Your task to perform on an android device: delete location history Image 0: 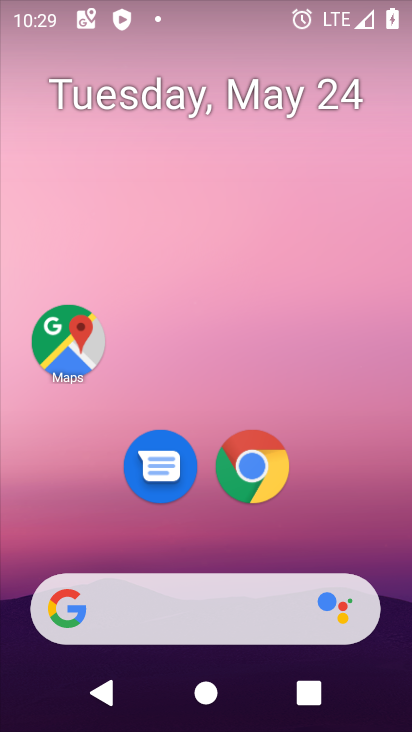
Step 0: drag from (395, 558) to (386, 251)
Your task to perform on an android device: delete location history Image 1: 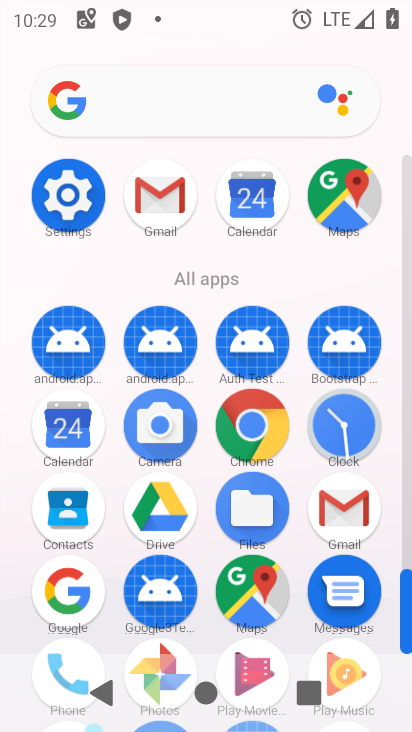
Step 1: click (256, 605)
Your task to perform on an android device: delete location history Image 2: 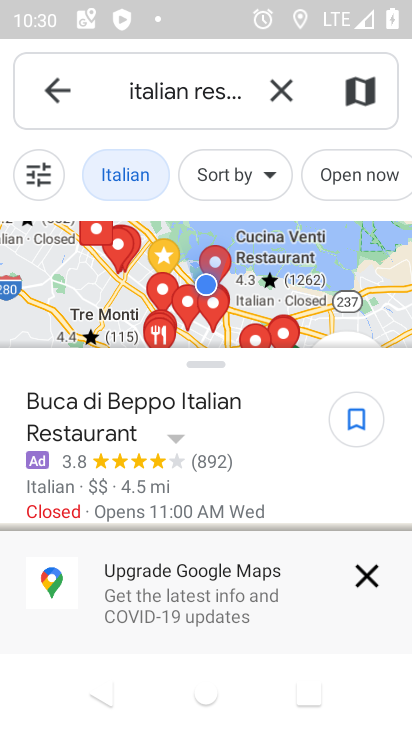
Step 2: click (61, 104)
Your task to perform on an android device: delete location history Image 3: 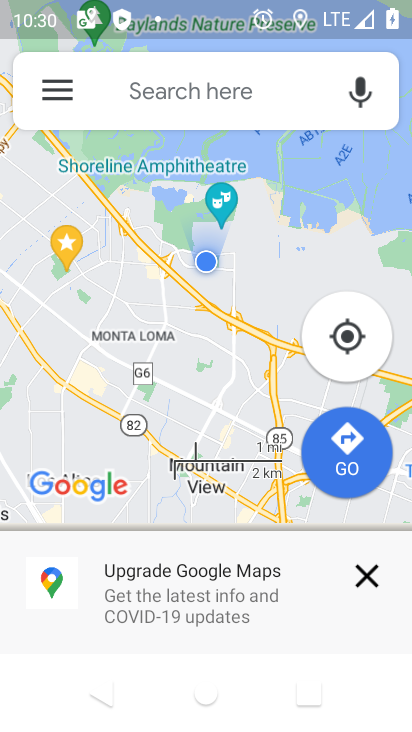
Step 3: click (61, 104)
Your task to perform on an android device: delete location history Image 4: 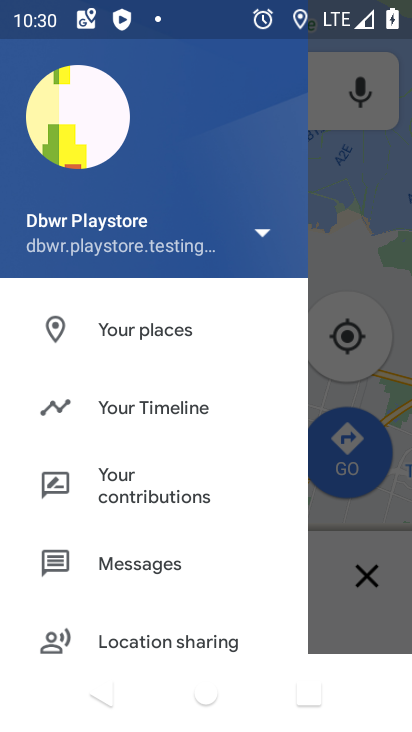
Step 4: click (190, 420)
Your task to perform on an android device: delete location history Image 5: 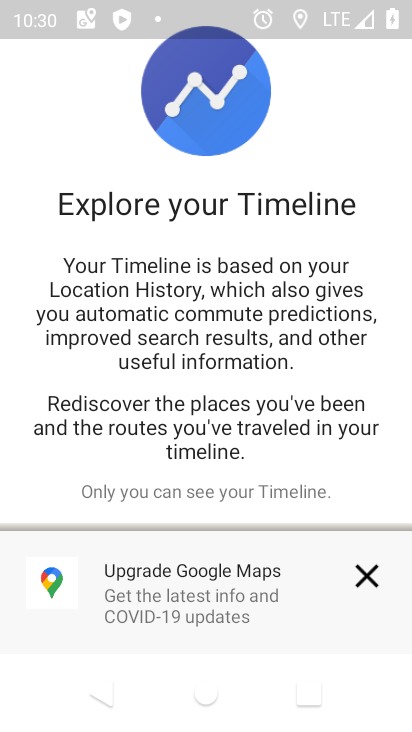
Step 5: click (370, 568)
Your task to perform on an android device: delete location history Image 6: 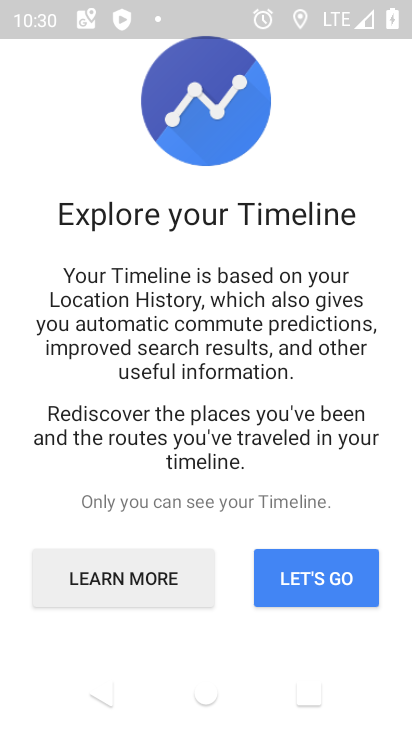
Step 6: click (292, 590)
Your task to perform on an android device: delete location history Image 7: 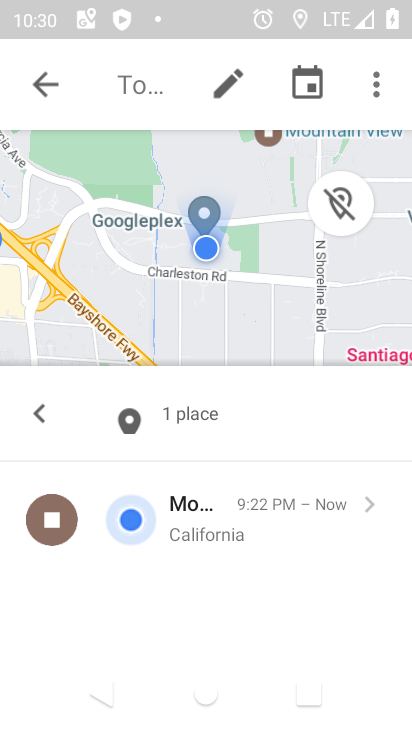
Step 7: click (382, 86)
Your task to perform on an android device: delete location history Image 8: 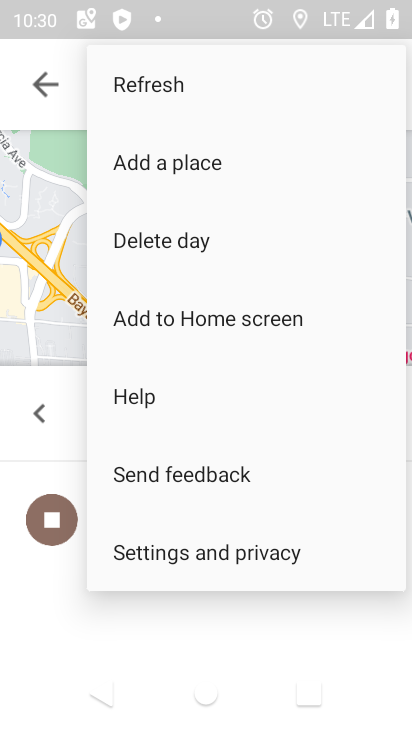
Step 8: click (237, 548)
Your task to perform on an android device: delete location history Image 9: 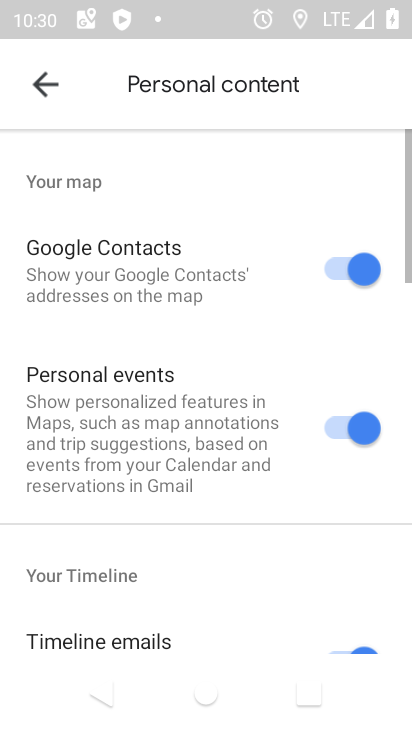
Step 9: drag from (239, 550) to (237, 419)
Your task to perform on an android device: delete location history Image 10: 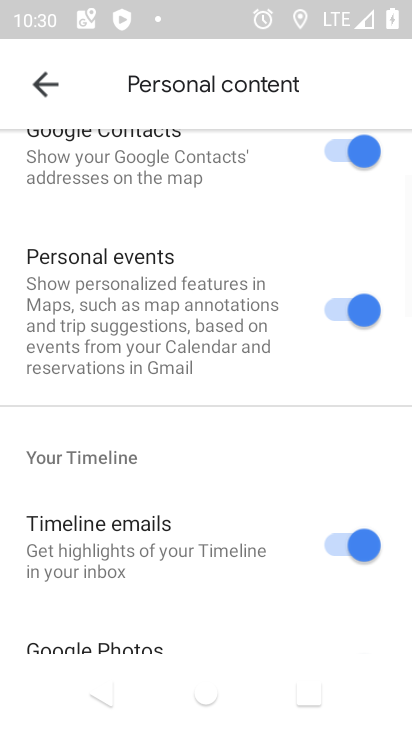
Step 10: drag from (248, 537) to (247, 433)
Your task to perform on an android device: delete location history Image 11: 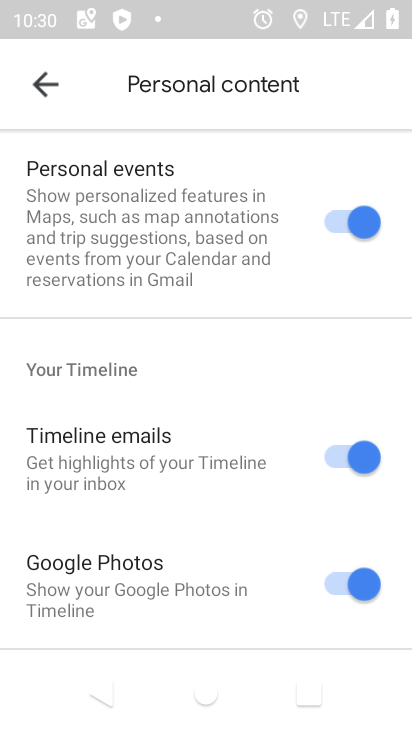
Step 11: drag from (257, 552) to (265, 474)
Your task to perform on an android device: delete location history Image 12: 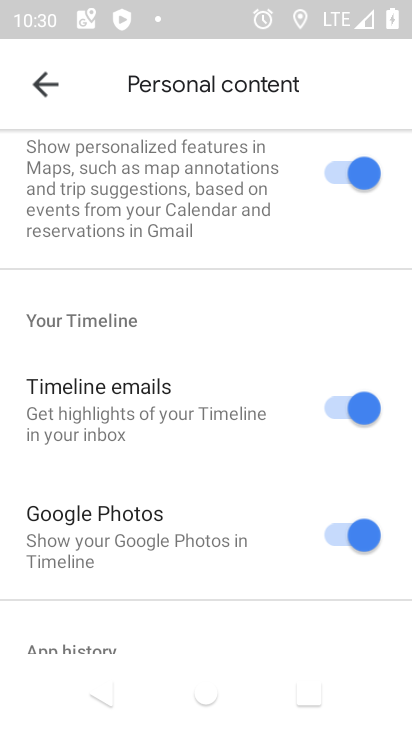
Step 12: drag from (274, 564) to (284, 467)
Your task to perform on an android device: delete location history Image 13: 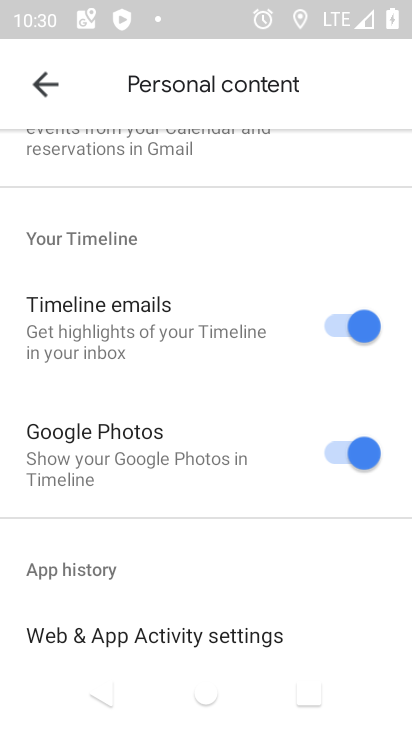
Step 13: drag from (266, 552) to (259, 445)
Your task to perform on an android device: delete location history Image 14: 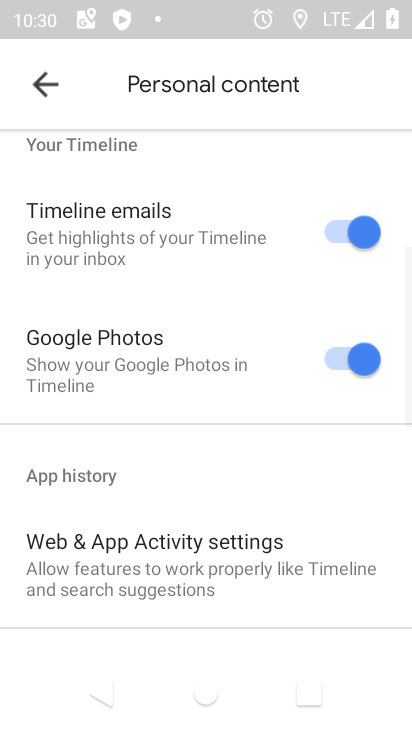
Step 14: drag from (268, 587) to (299, 470)
Your task to perform on an android device: delete location history Image 15: 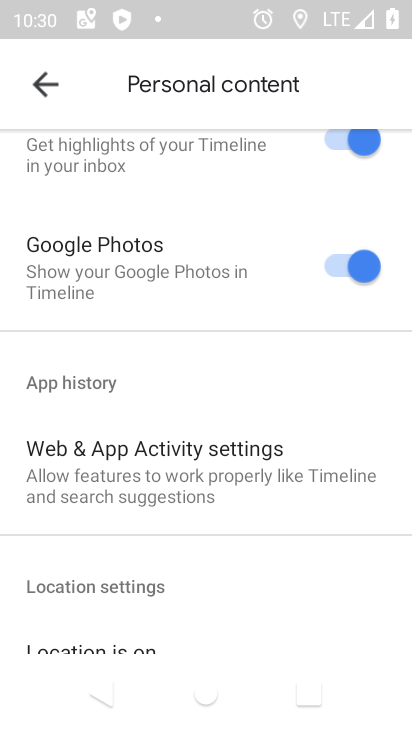
Step 15: drag from (302, 544) to (303, 459)
Your task to perform on an android device: delete location history Image 16: 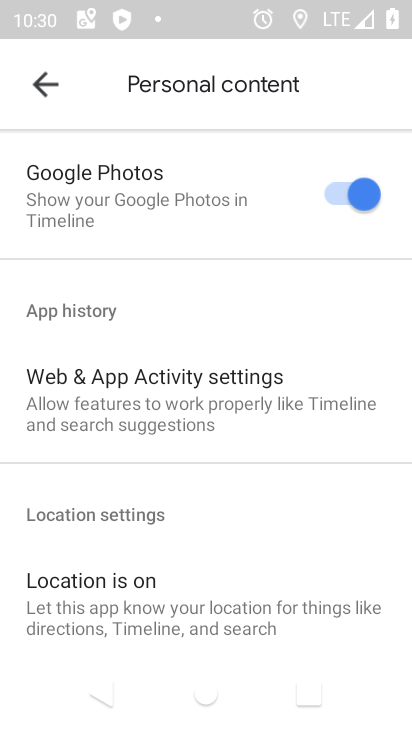
Step 16: drag from (304, 553) to (313, 458)
Your task to perform on an android device: delete location history Image 17: 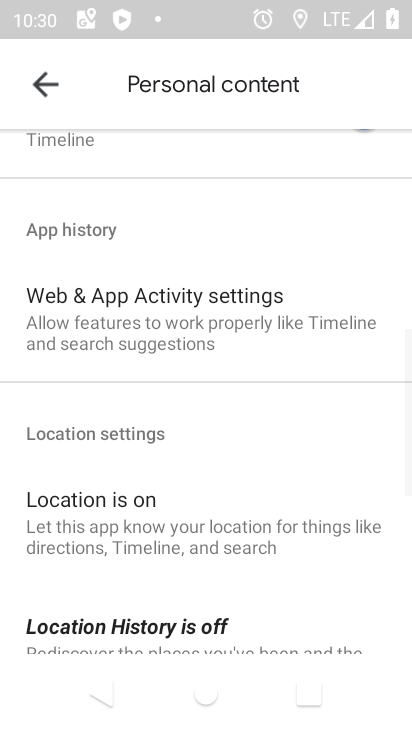
Step 17: drag from (308, 575) to (303, 483)
Your task to perform on an android device: delete location history Image 18: 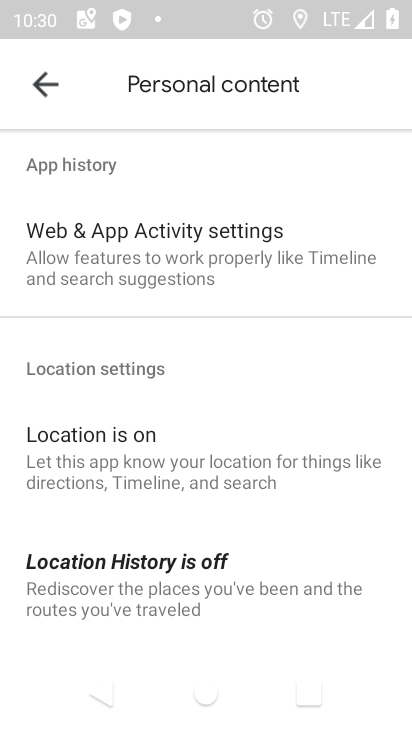
Step 18: drag from (290, 565) to (292, 475)
Your task to perform on an android device: delete location history Image 19: 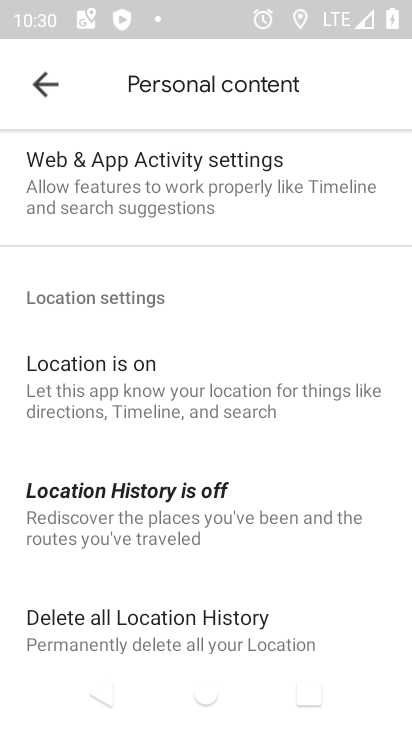
Step 19: drag from (283, 561) to (285, 474)
Your task to perform on an android device: delete location history Image 20: 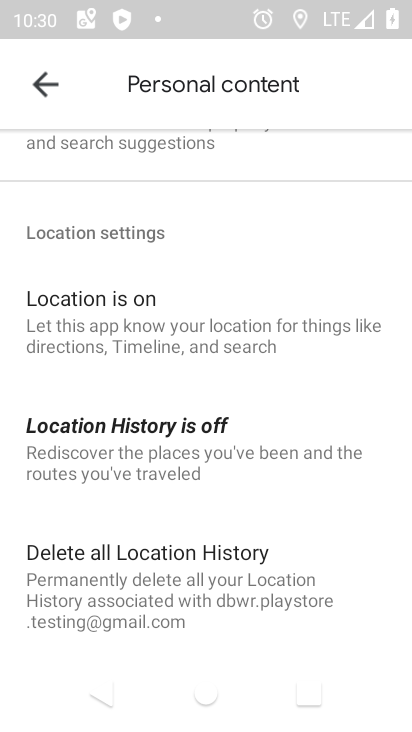
Step 20: click (289, 587)
Your task to perform on an android device: delete location history Image 21: 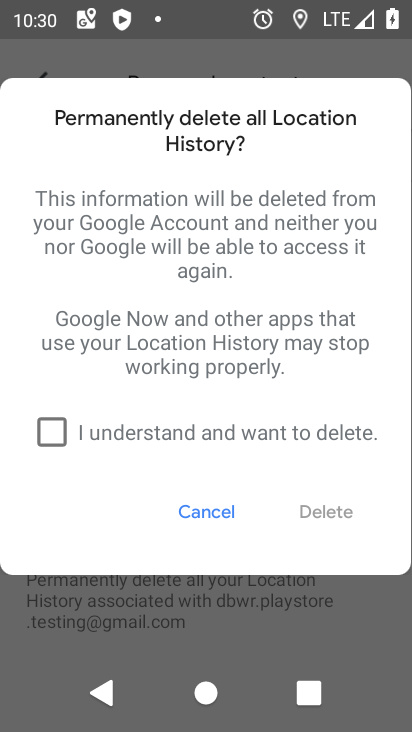
Step 21: click (46, 442)
Your task to perform on an android device: delete location history Image 22: 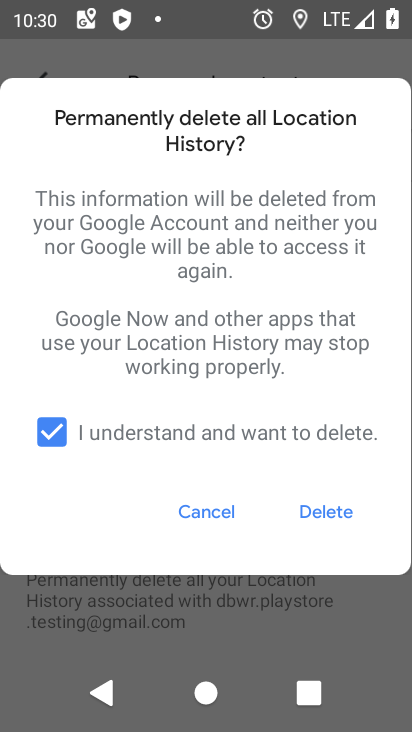
Step 22: click (343, 504)
Your task to perform on an android device: delete location history Image 23: 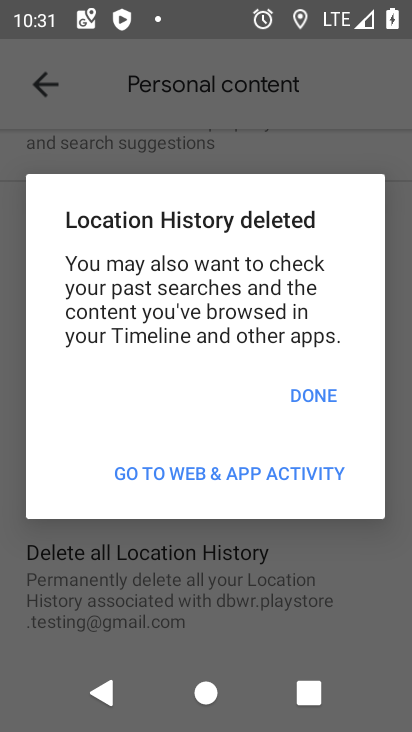
Step 23: task complete